Your task to perform on an android device: clear history in the chrome app Image 0: 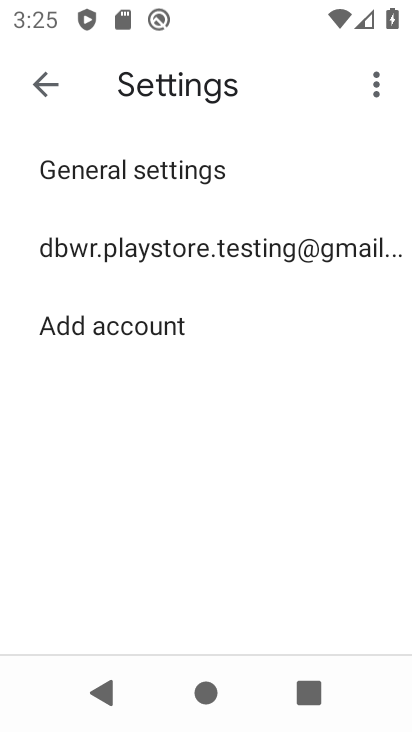
Step 0: press home button
Your task to perform on an android device: clear history in the chrome app Image 1: 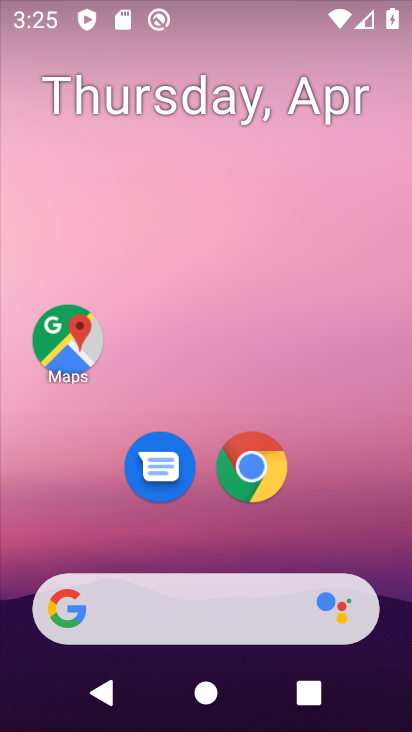
Step 1: drag from (149, 461) to (160, 205)
Your task to perform on an android device: clear history in the chrome app Image 2: 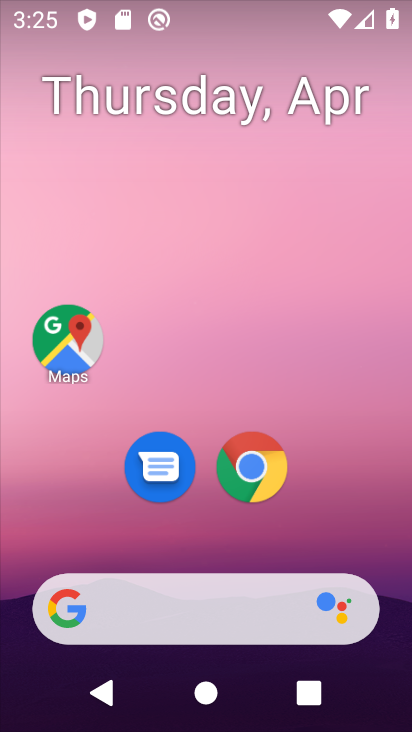
Step 2: drag from (156, 635) to (285, 228)
Your task to perform on an android device: clear history in the chrome app Image 3: 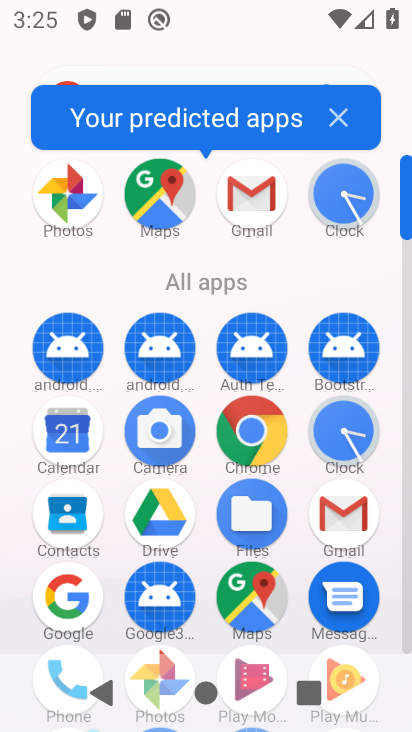
Step 3: click (255, 441)
Your task to perform on an android device: clear history in the chrome app Image 4: 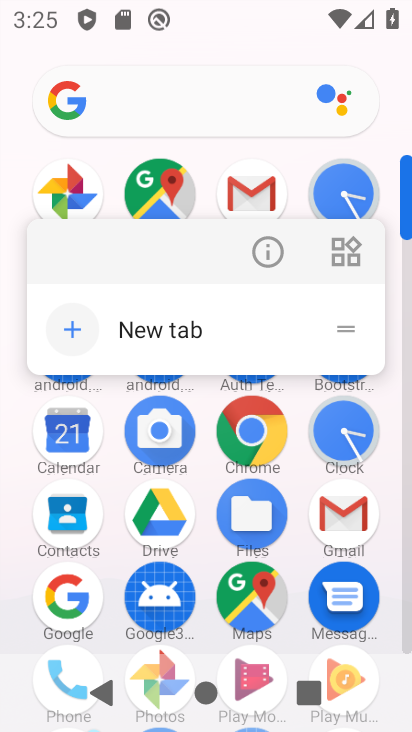
Step 4: click (255, 441)
Your task to perform on an android device: clear history in the chrome app Image 5: 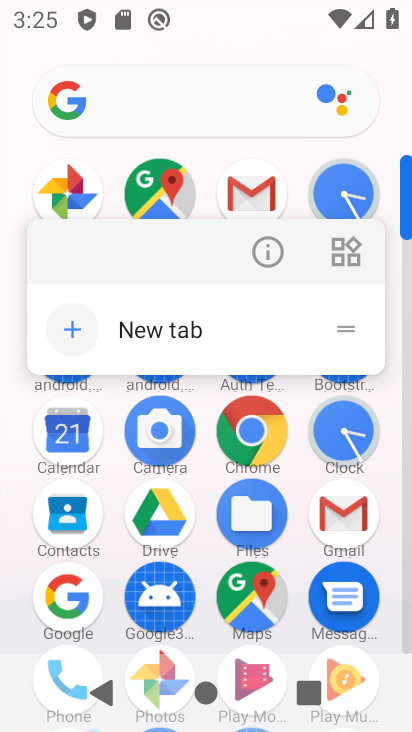
Step 5: click (255, 441)
Your task to perform on an android device: clear history in the chrome app Image 6: 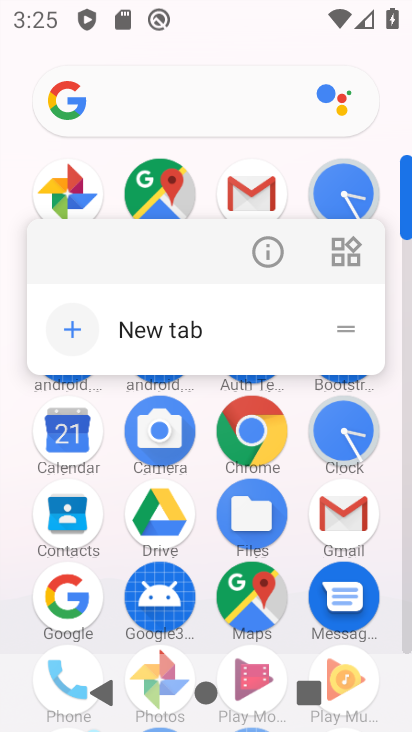
Step 6: click (255, 441)
Your task to perform on an android device: clear history in the chrome app Image 7: 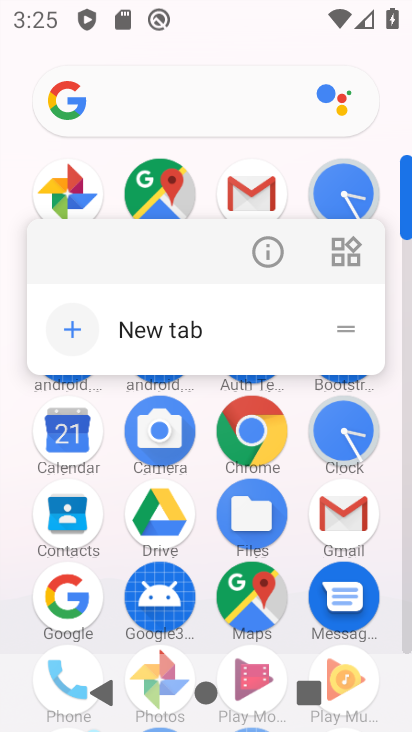
Step 7: click (255, 441)
Your task to perform on an android device: clear history in the chrome app Image 8: 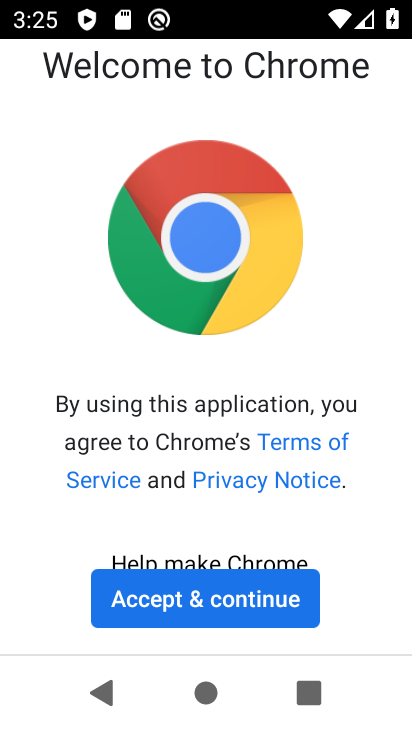
Step 8: click (194, 603)
Your task to perform on an android device: clear history in the chrome app Image 9: 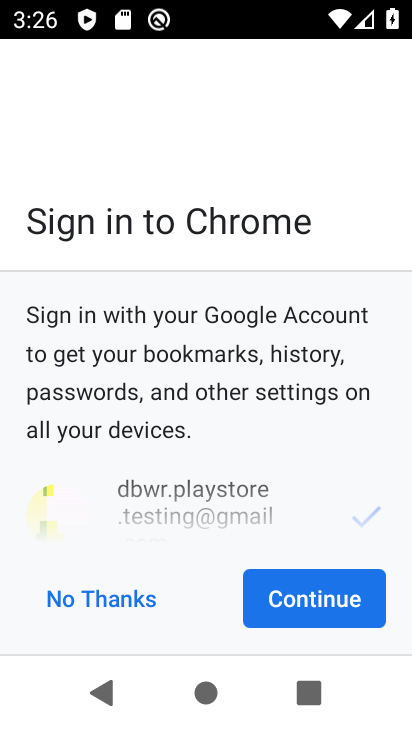
Step 9: click (295, 600)
Your task to perform on an android device: clear history in the chrome app Image 10: 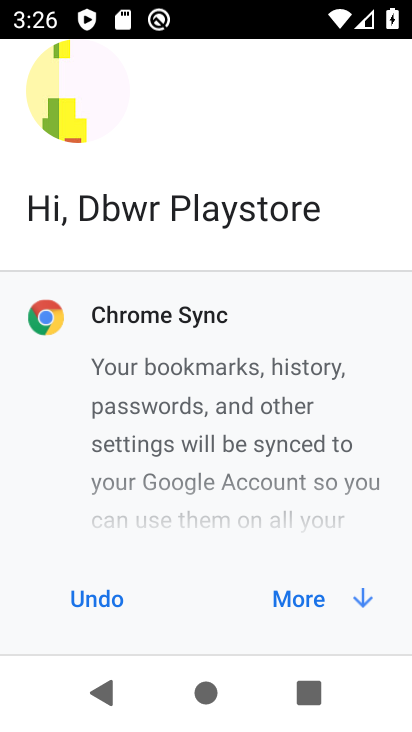
Step 10: click (295, 600)
Your task to perform on an android device: clear history in the chrome app Image 11: 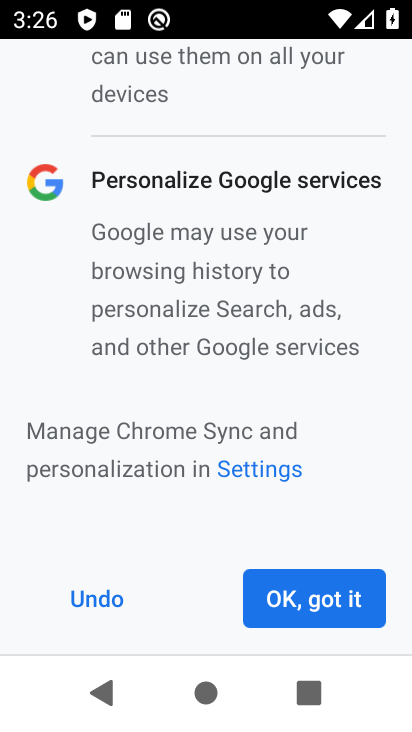
Step 11: click (295, 600)
Your task to perform on an android device: clear history in the chrome app Image 12: 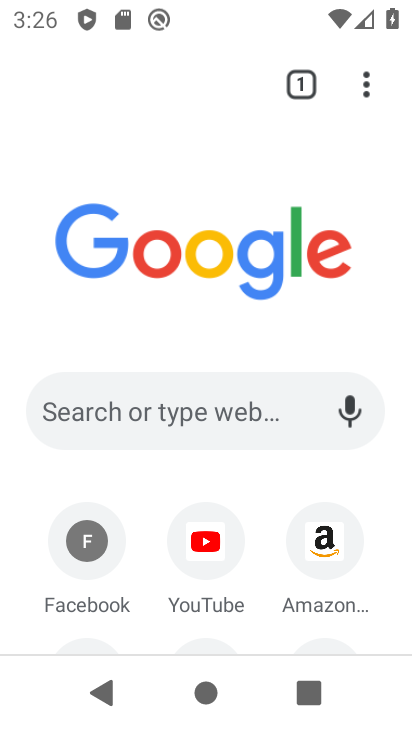
Step 12: click (360, 81)
Your task to perform on an android device: clear history in the chrome app Image 13: 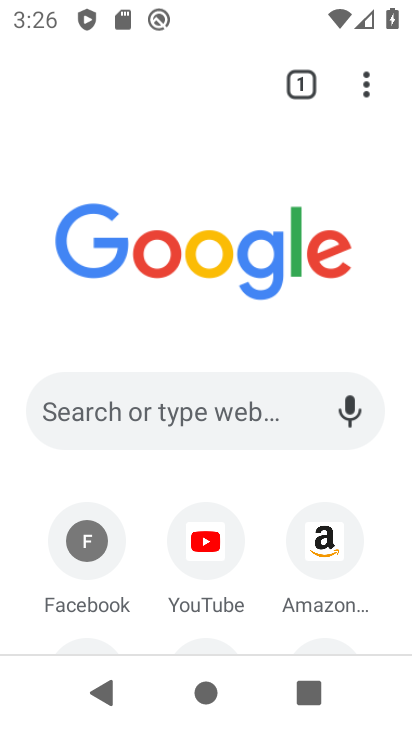
Step 13: click (363, 86)
Your task to perform on an android device: clear history in the chrome app Image 14: 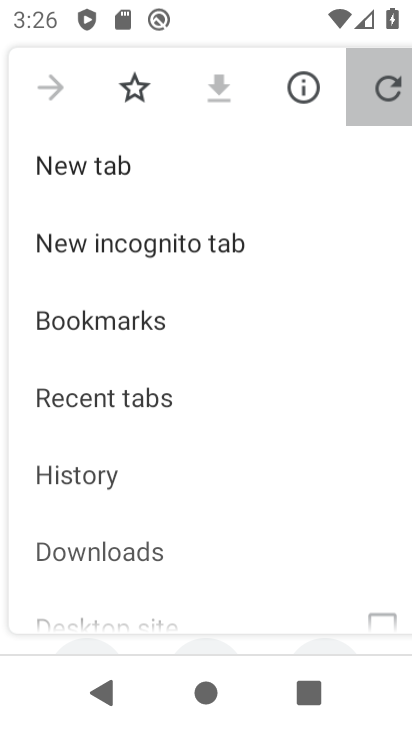
Step 14: click (363, 86)
Your task to perform on an android device: clear history in the chrome app Image 15: 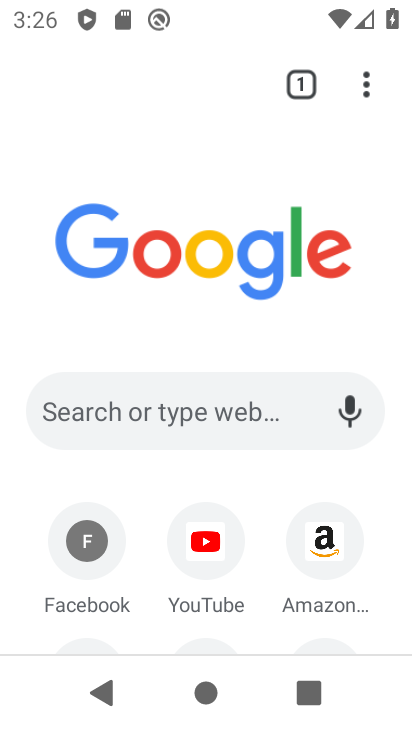
Step 15: drag from (363, 86) to (123, 506)
Your task to perform on an android device: clear history in the chrome app Image 16: 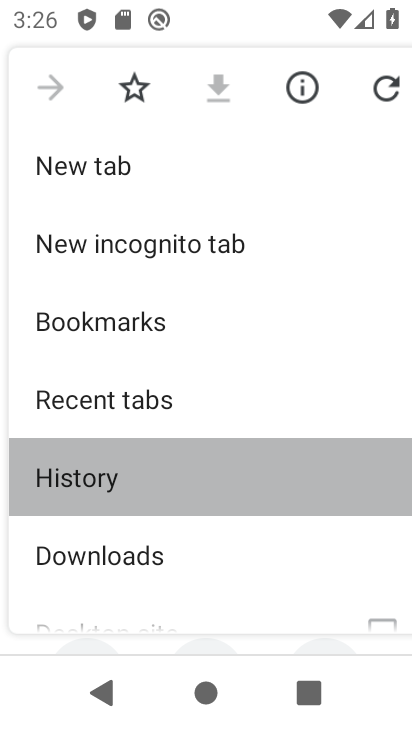
Step 16: click (100, 486)
Your task to perform on an android device: clear history in the chrome app Image 17: 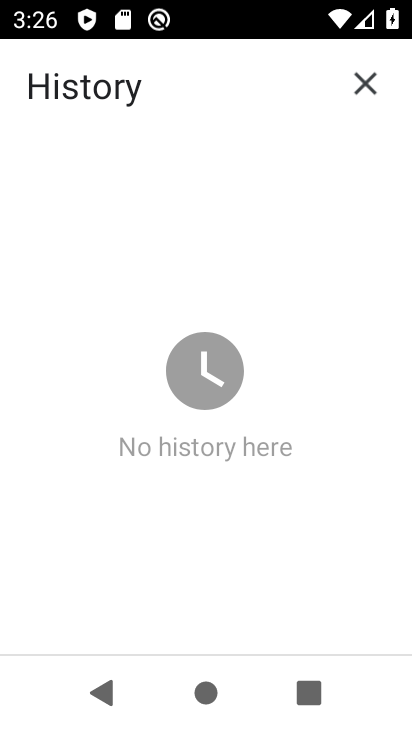
Step 17: task complete